Your task to perform on an android device: change the clock style Image 0: 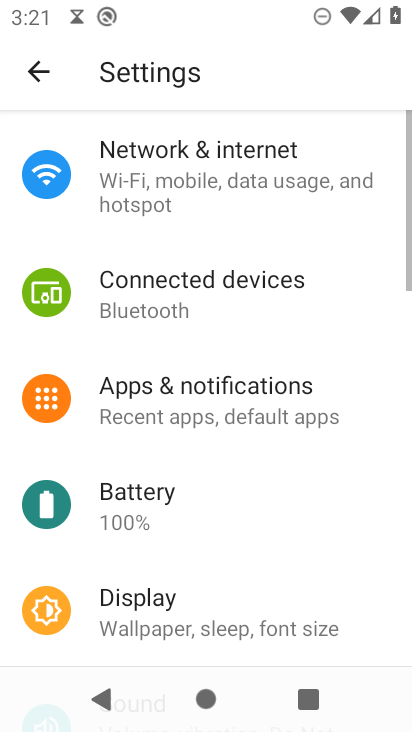
Step 0: press home button
Your task to perform on an android device: change the clock style Image 1: 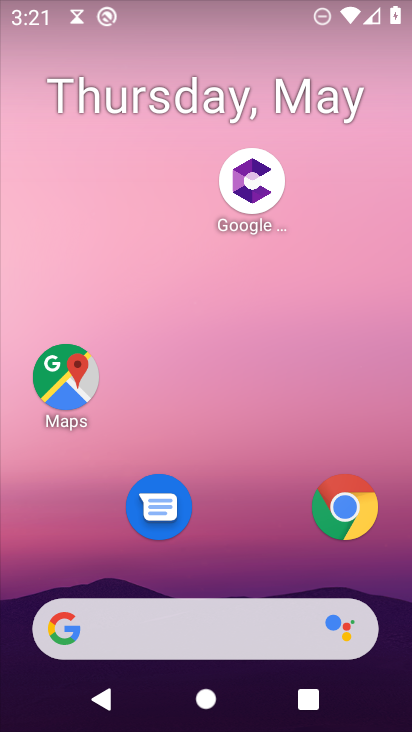
Step 1: drag from (285, 556) to (236, 28)
Your task to perform on an android device: change the clock style Image 2: 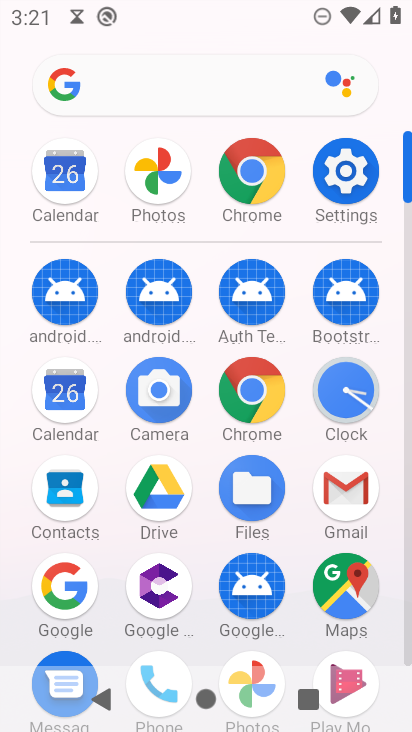
Step 2: click (346, 380)
Your task to perform on an android device: change the clock style Image 3: 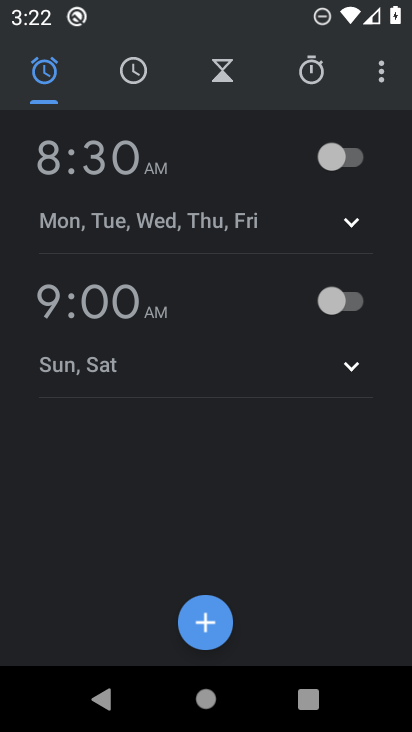
Step 3: click (374, 81)
Your task to perform on an android device: change the clock style Image 4: 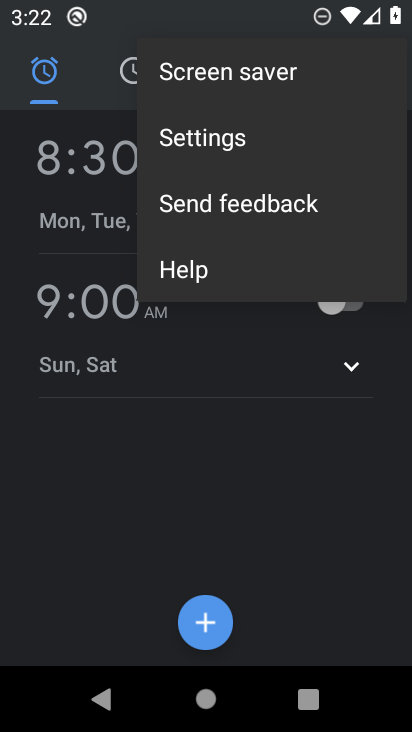
Step 4: click (246, 138)
Your task to perform on an android device: change the clock style Image 5: 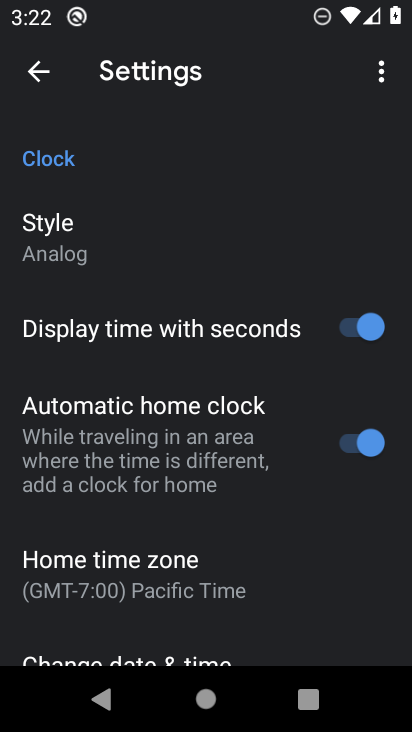
Step 5: click (65, 257)
Your task to perform on an android device: change the clock style Image 6: 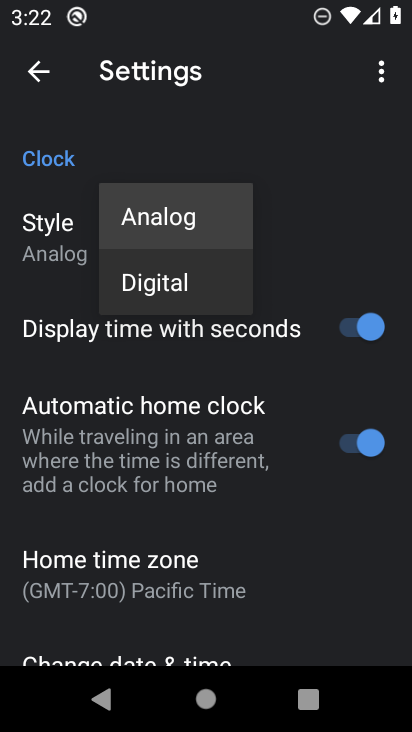
Step 6: click (161, 301)
Your task to perform on an android device: change the clock style Image 7: 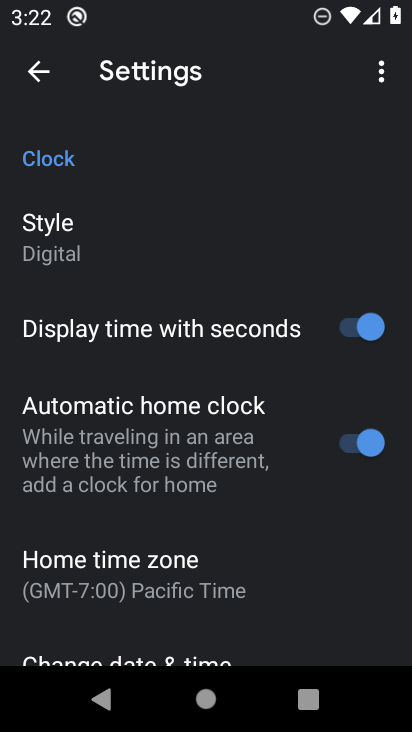
Step 7: task complete